Your task to perform on an android device: turn on javascript in the chrome app Image 0: 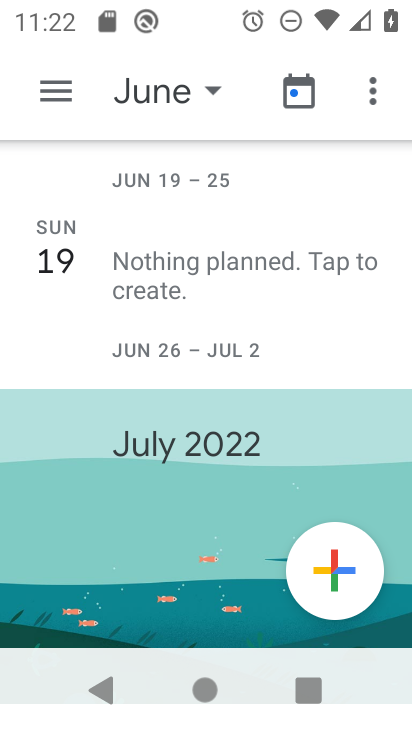
Step 0: press home button
Your task to perform on an android device: turn on javascript in the chrome app Image 1: 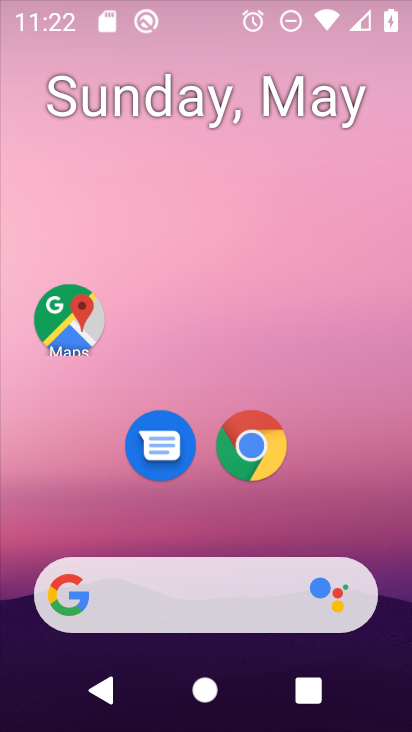
Step 1: drag from (226, 586) to (216, 228)
Your task to perform on an android device: turn on javascript in the chrome app Image 2: 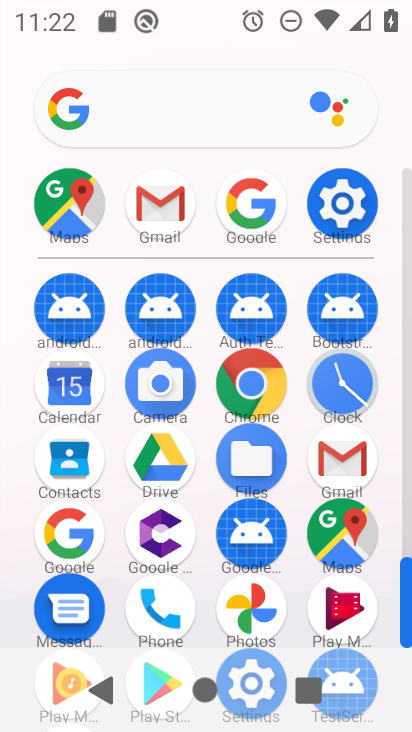
Step 2: click (261, 380)
Your task to perform on an android device: turn on javascript in the chrome app Image 3: 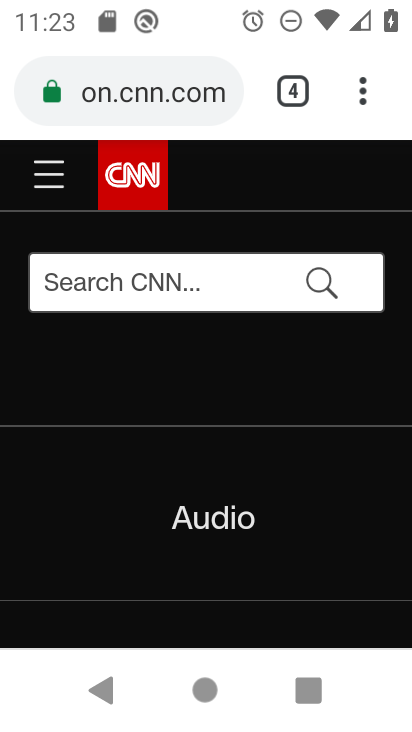
Step 3: click (371, 110)
Your task to perform on an android device: turn on javascript in the chrome app Image 4: 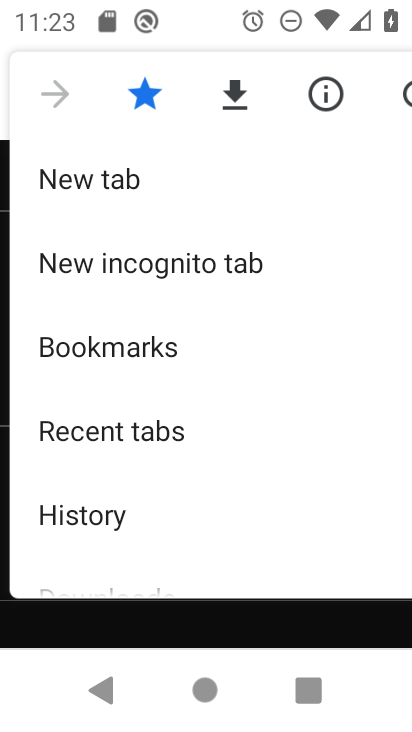
Step 4: drag from (143, 403) to (224, 0)
Your task to perform on an android device: turn on javascript in the chrome app Image 5: 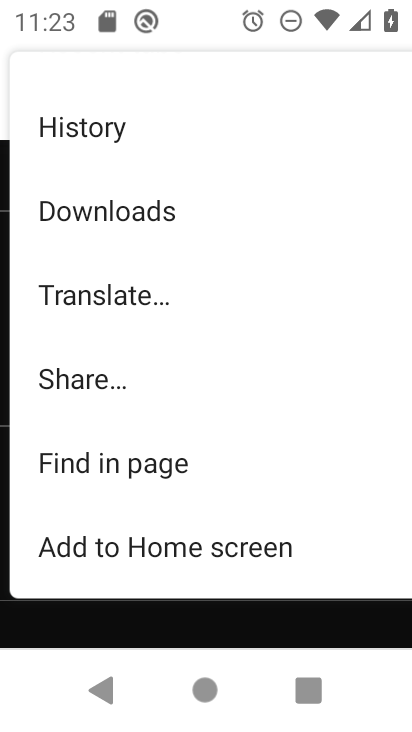
Step 5: drag from (146, 488) to (312, 11)
Your task to perform on an android device: turn on javascript in the chrome app Image 6: 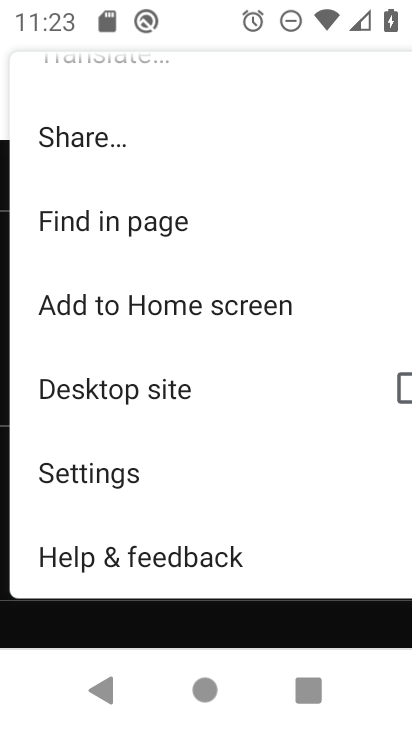
Step 6: click (160, 483)
Your task to perform on an android device: turn on javascript in the chrome app Image 7: 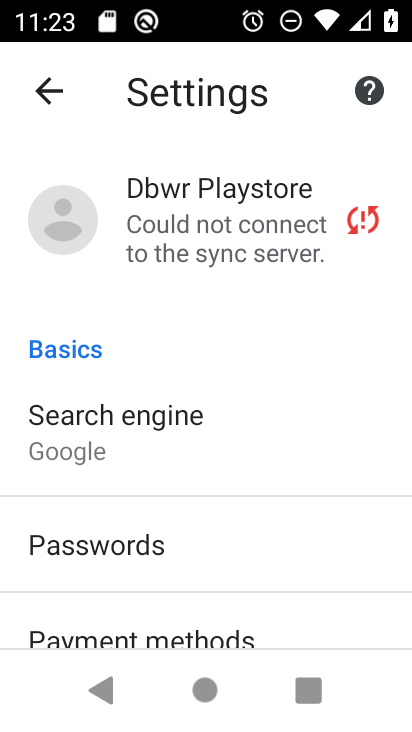
Step 7: drag from (157, 541) to (382, 27)
Your task to perform on an android device: turn on javascript in the chrome app Image 8: 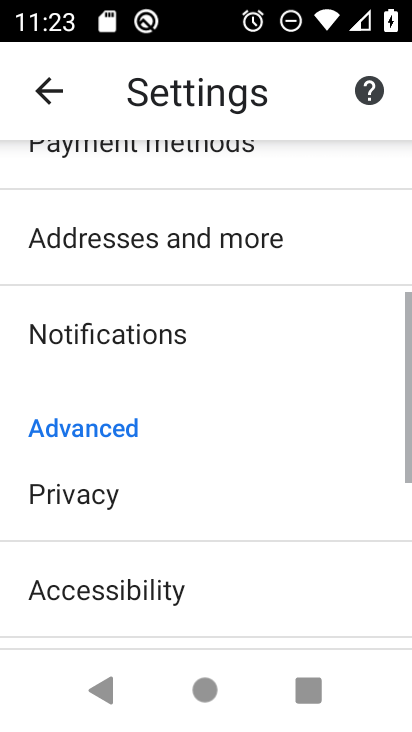
Step 8: drag from (149, 550) to (254, 42)
Your task to perform on an android device: turn on javascript in the chrome app Image 9: 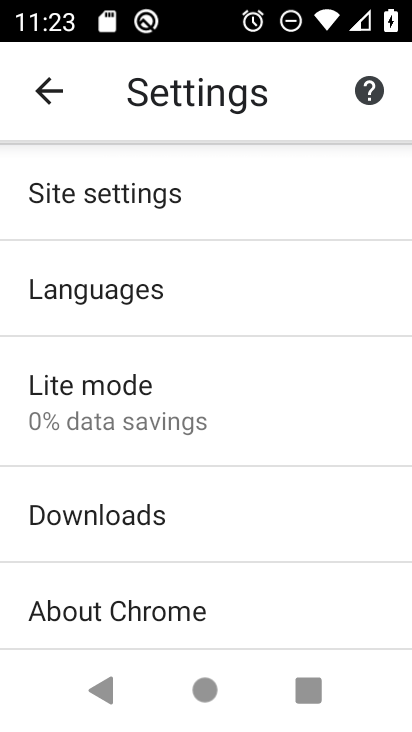
Step 9: click (162, 207)
Your task to perform on an android device: turn on javascript in the chrome app Image 10: 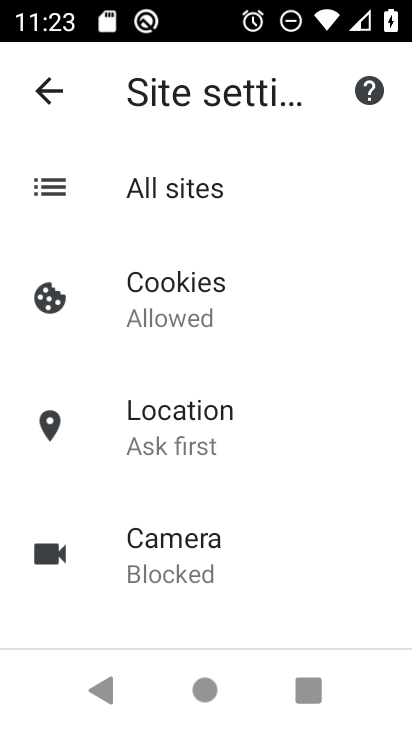
Step 10: drag from (116, 489) to (184, 90)
Your task to perform on an android device: turn on javascript in the chrome app Image 11: 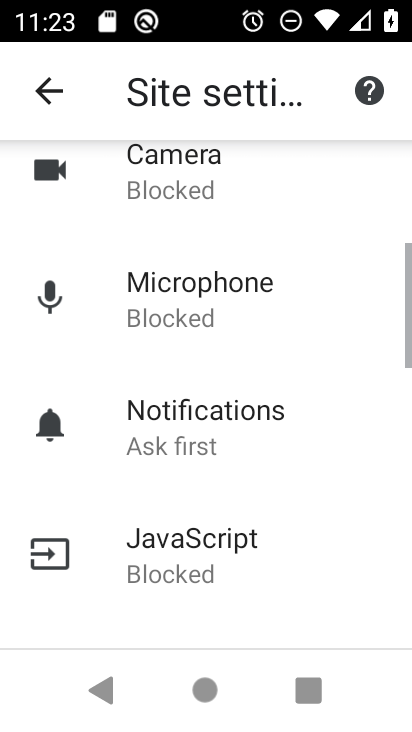
Step 11: click (166, 552)
Your task to perform on an android device: turn on javascript in the chrome app Image 12: 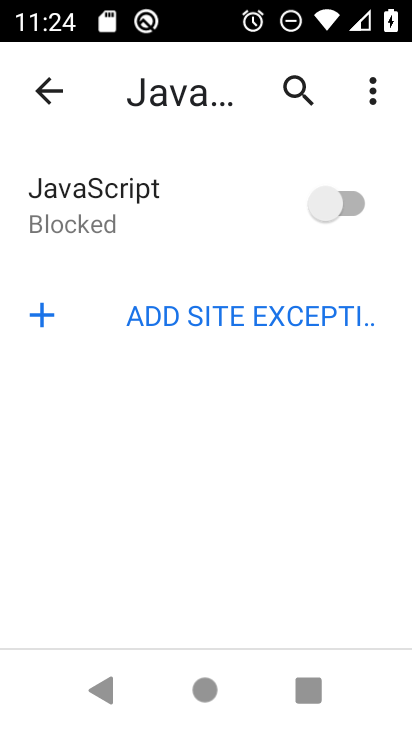
Step 12: click (332, 194)
Your task to perform on an android device: turn on javascript in the chrome app Image 13: 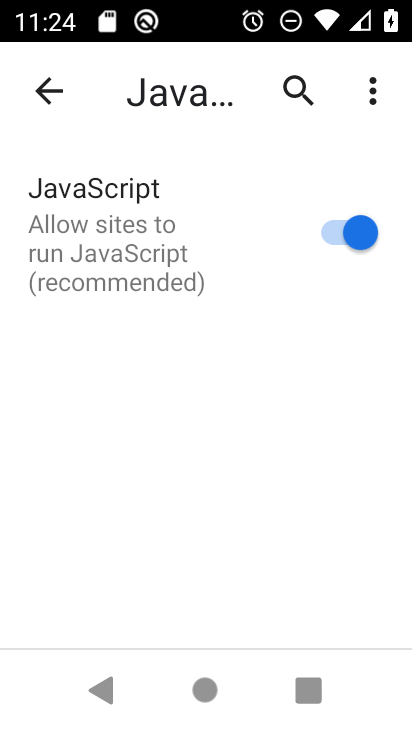
Step 13: task complete